Your task to perform on an android device: Is it going to rain today? Image 0: 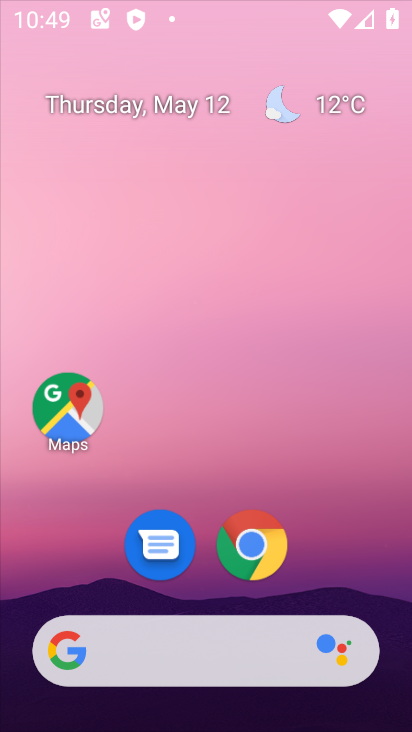
Step 0: drag from (211, 397) to (214, 111)
Your task to perform on an android device: Is it going to rain today? Image 1: 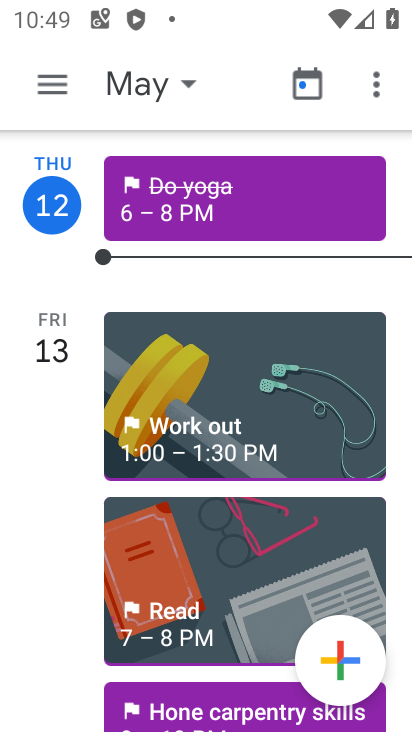
Step 1: press home button
Your task to perform on an android device: Is it going to rain today? Image 2: 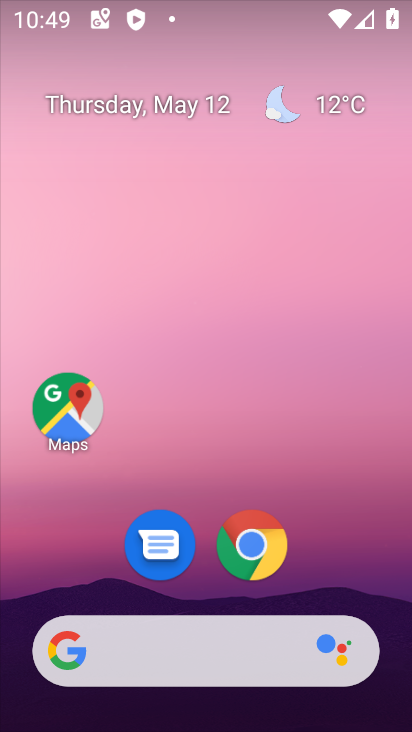
Step 2: drag from (206, 589) to (229, 116)
Your task to perform on an android device: Is it going to rain today? Image 3: 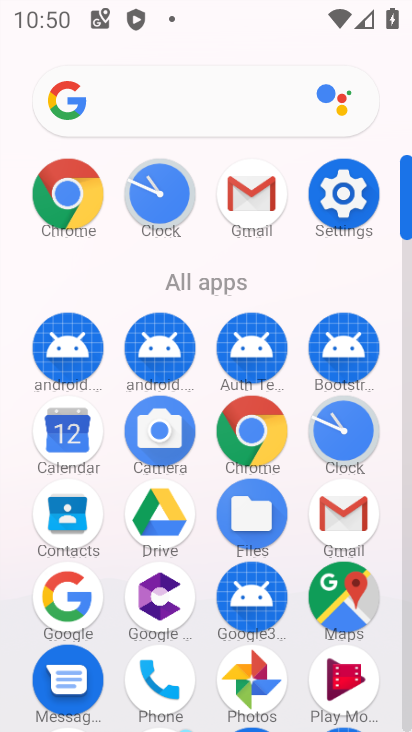
Step 3: press home button
Your task to perform on an android device: Is it going to rain today? Image 4: 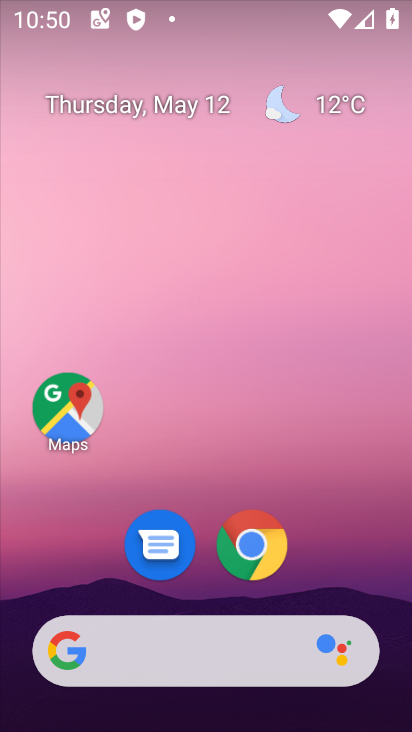
Step 4: click (338, 103)
Your task to perform on an android device: Is it going to rain today? Image 5: 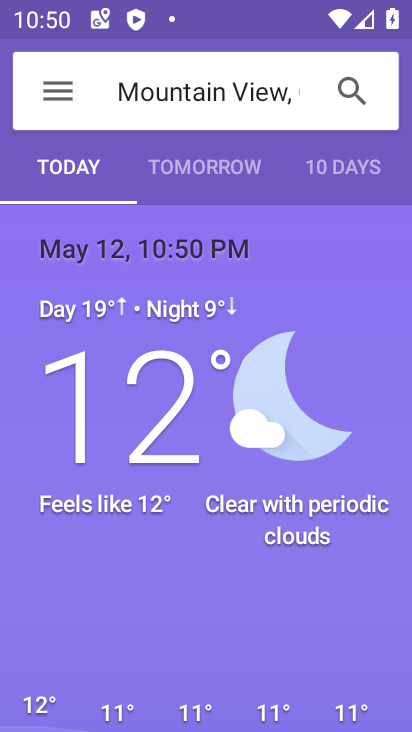
Step 5: drag from (198, 645) to (215, 246)
Your task to perform on an android device: Is it going to rain today? Image 6: 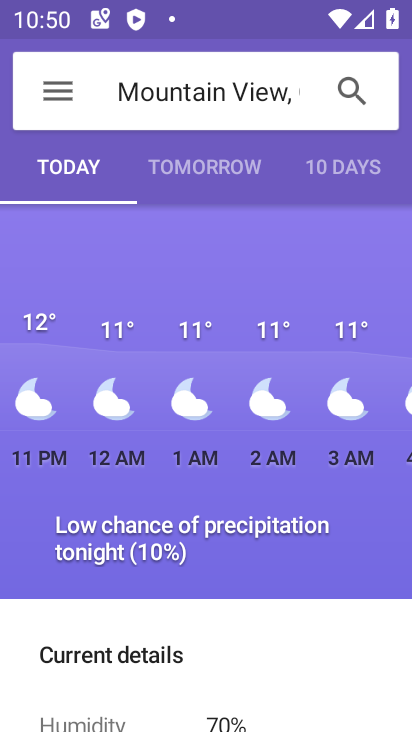
Step 6: drag from (351, 401) to (54, 402)
Your task to perform on an android device: Is it going to rain today? Image 7: 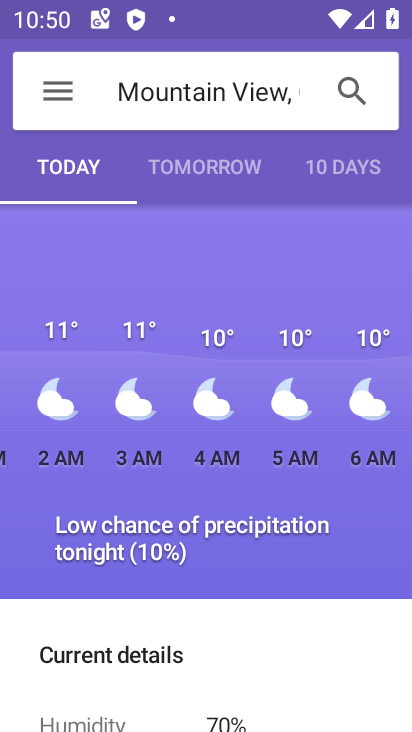
Step 7: drag from (358, 409) to (3, 422)
Your task to perform on an android device: Is it going to rain today? Image 8: 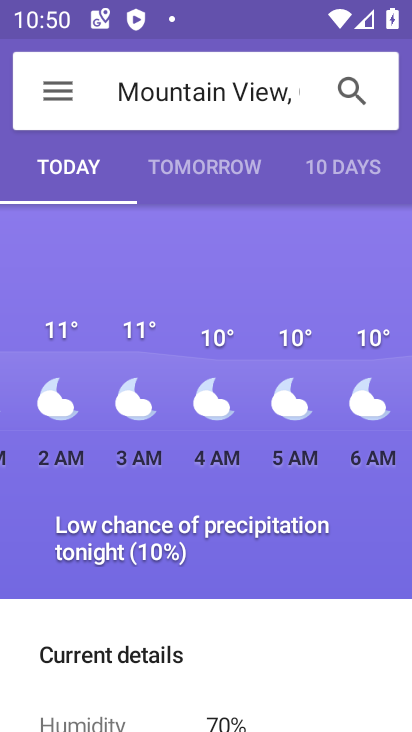
Step 8: drag from (30, 419) to (367, 421)
Your task to perform on an android device: Is it going to rain today? Image 9: 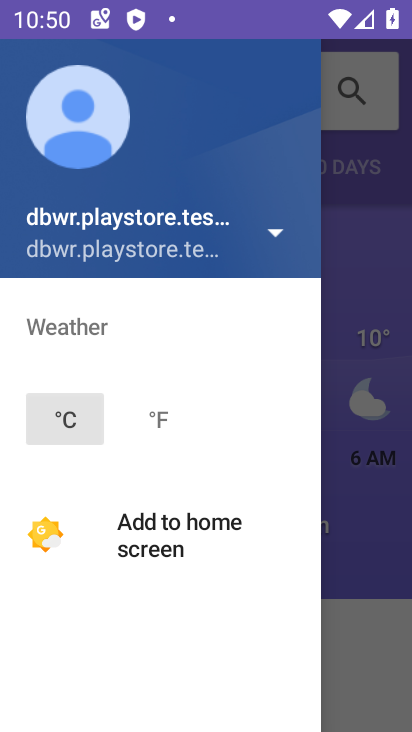
Step 9: click (354, 555)
Your task to perform on an android device: Is it going to rain today? Image 10: 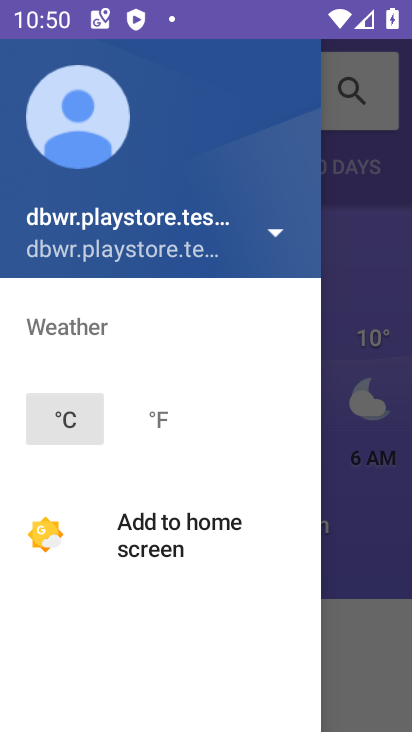
Step 10: click (371, 102)
Your task to perform on an android device: Is it going to rain today? Image 11: 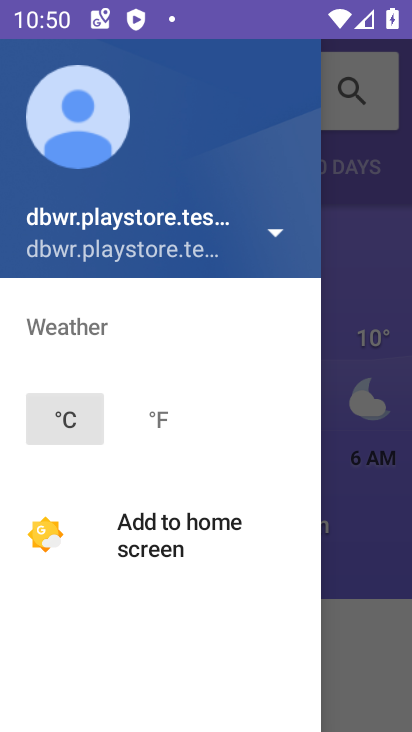
Step 11: task complete